Your task to perform on an android device: Turn on the flashlight Image 0: 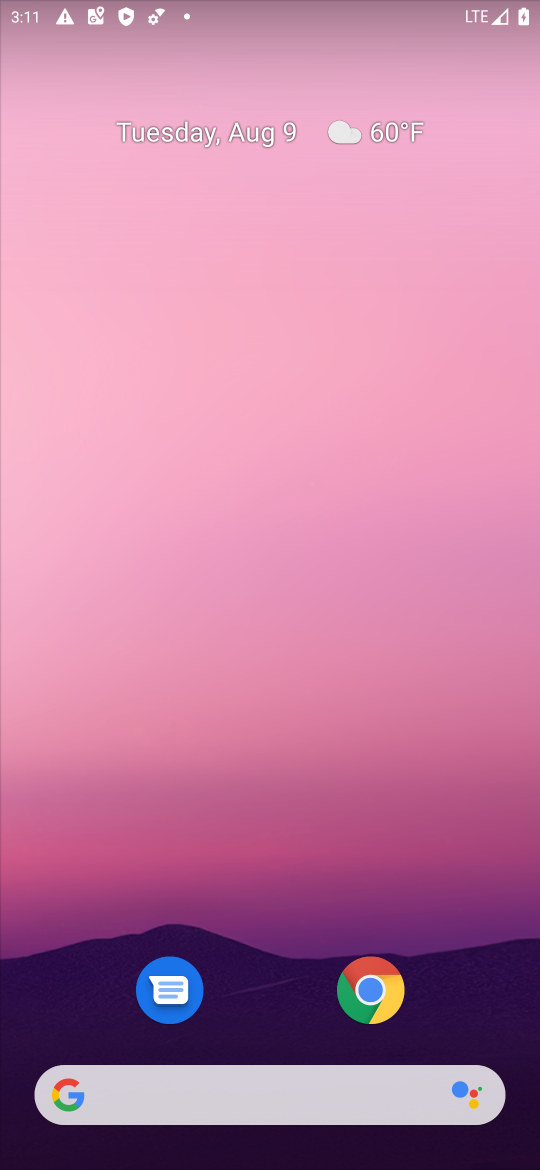
Step 0: drag from (369, 1) to (395, 972)
Your task to perform on an android device: Turn on the flashlight Image 1: 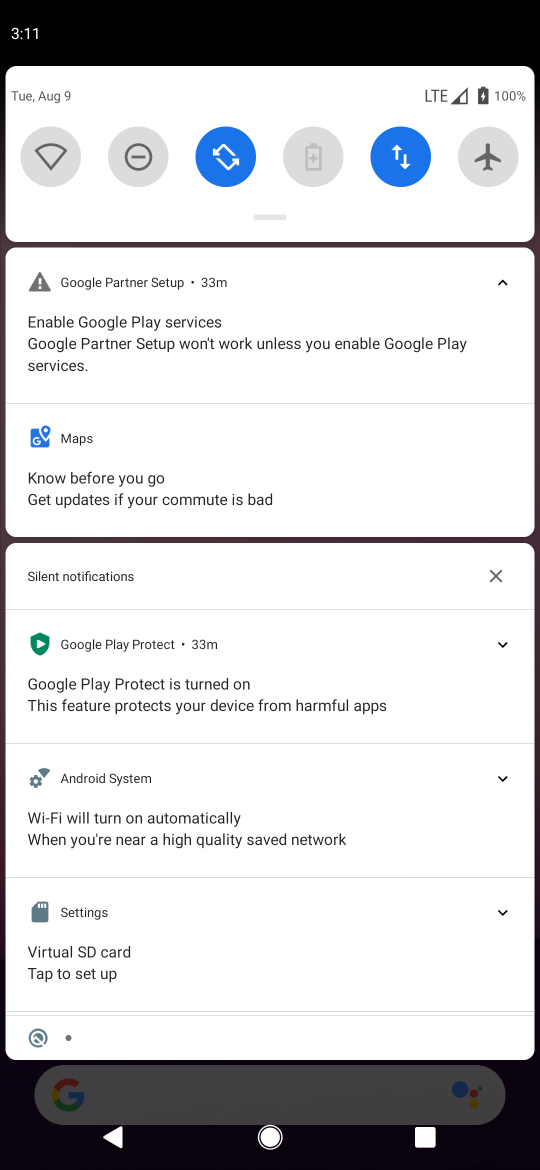
Step 1: task complete